Your task to perform on an android device: open app "Clock" Image 0: 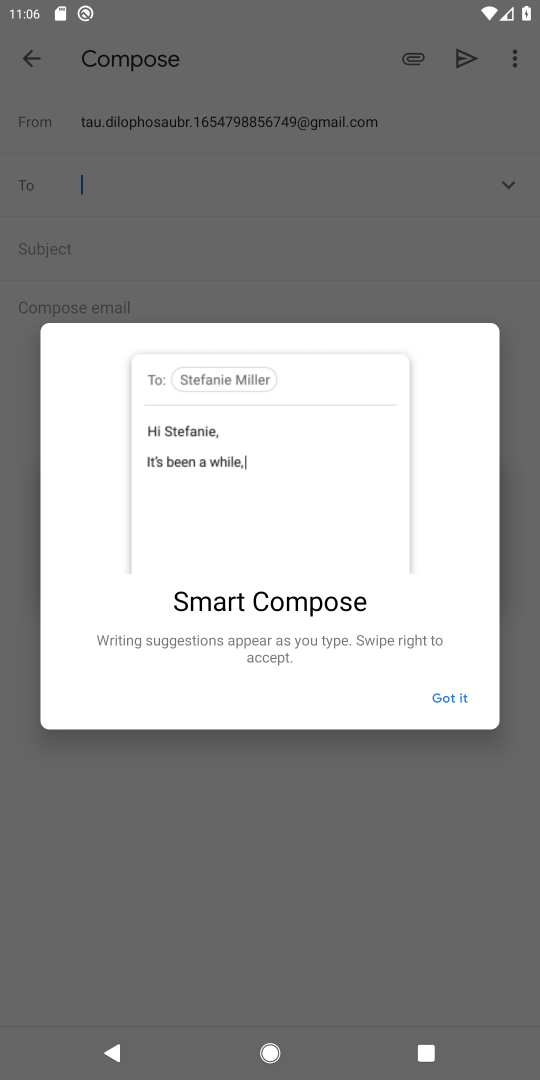
Step 0: press home button
Your task to perform on an android device: open app "Clock" Image 1: 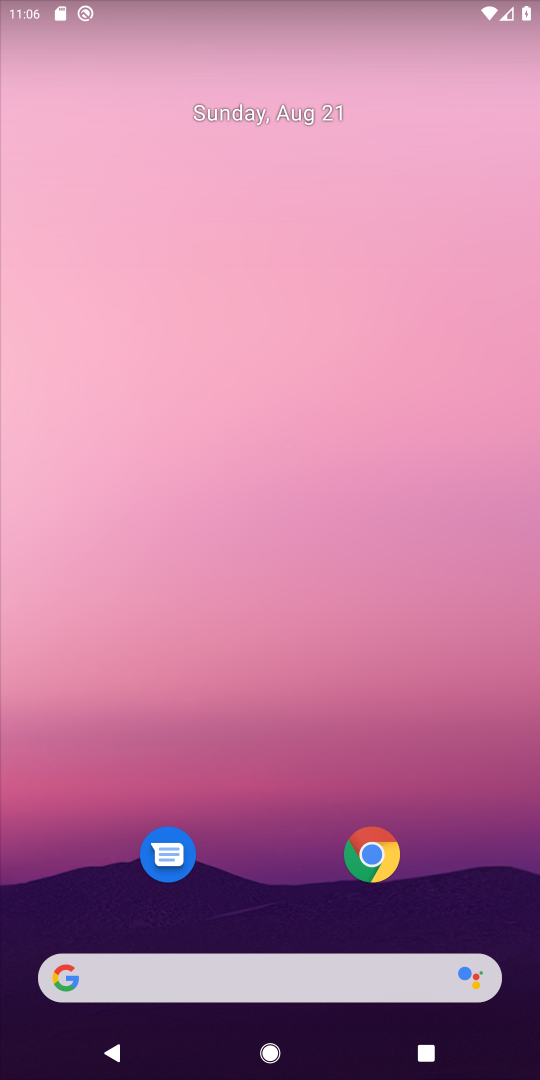
Step 1: drag from (308, 901) to (280, 284)
Your task to perform on an android device: open app "Clock" Image 2: 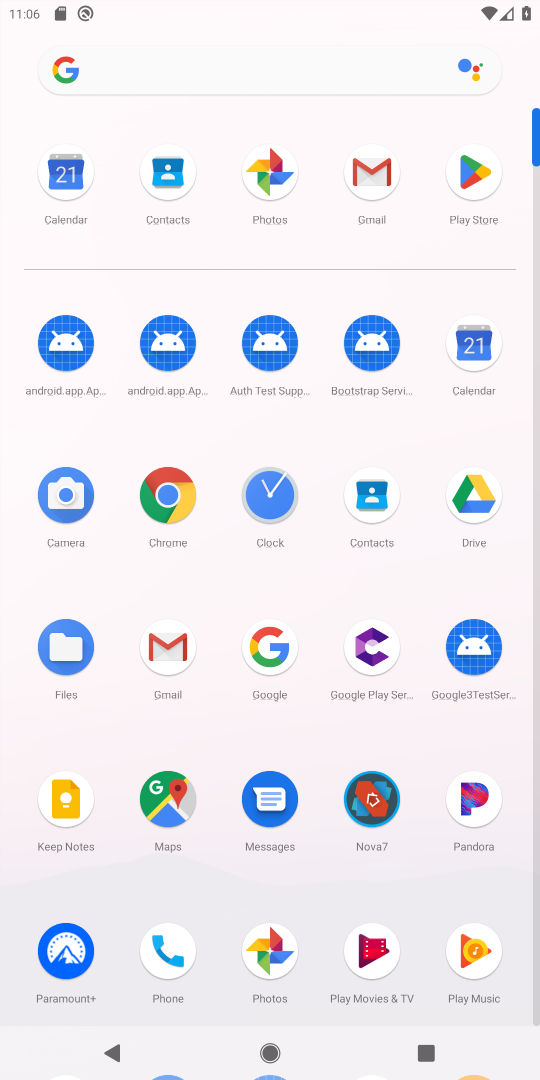
Step 2: click (278, 479)
Your task to perform on an android device: open app "Clock" Image 3: 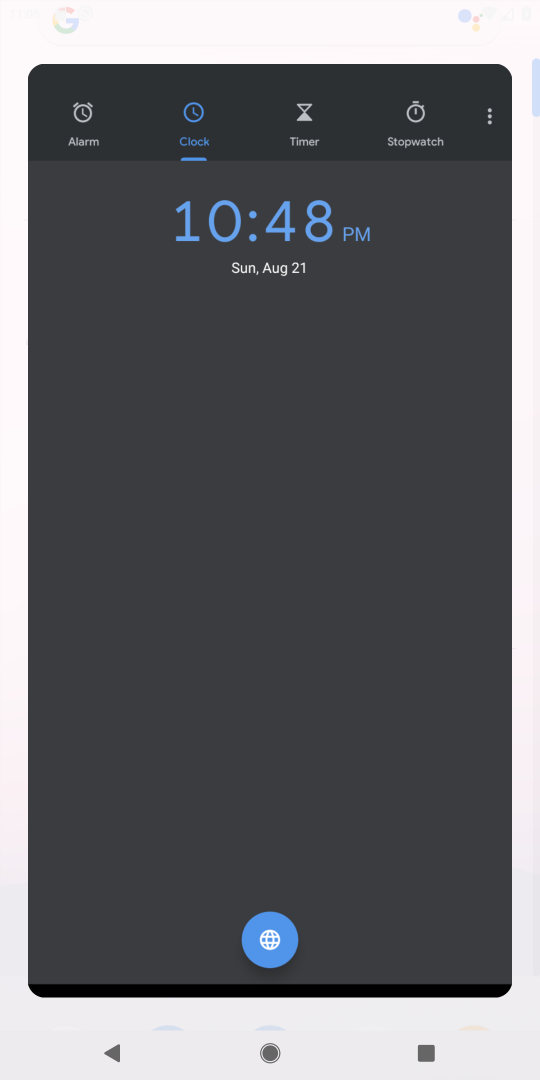
Step 3: task complete